Your task to perform on an android device: change the clock style Image 0: 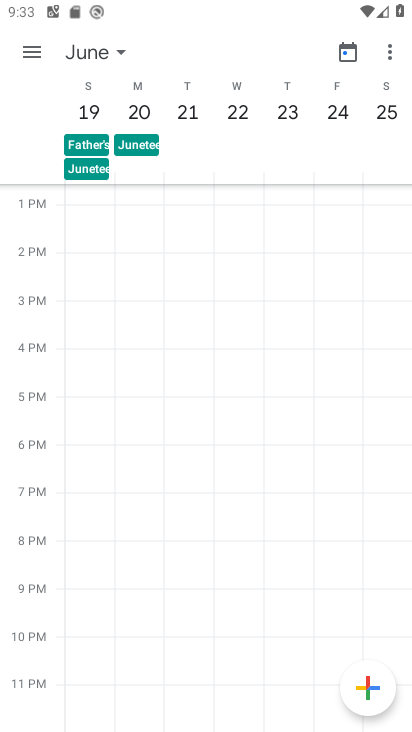
Step 0: press home button
Your task to perform on an android device: change the clock style Image 1: 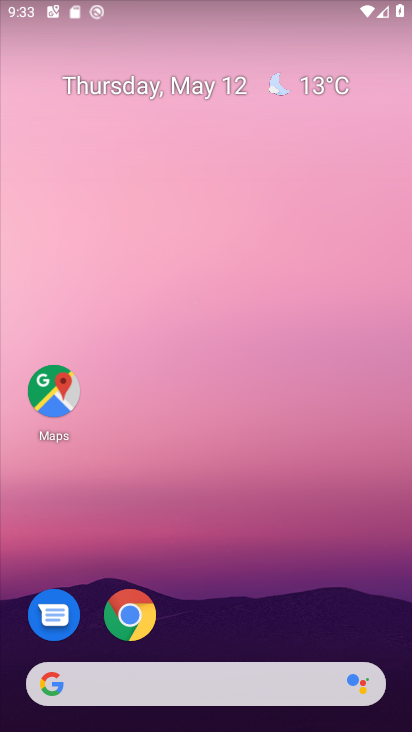
Step 1: drag from (252, 542) to (201, 79)
Your task to perform on an android device: change the clock style Image 2: 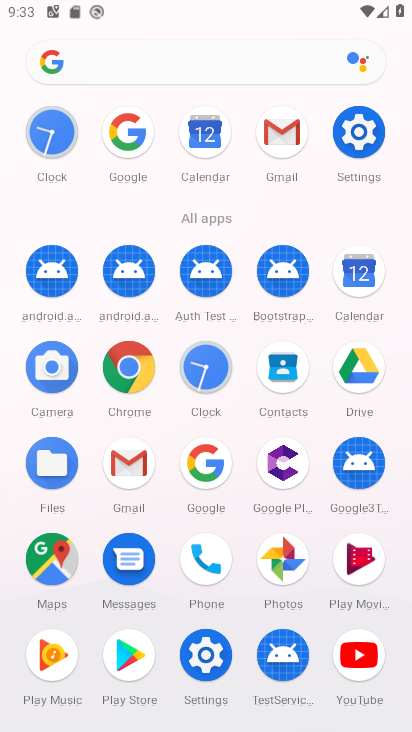
Step 2: click (218, 370)
Your task to perform on an android device: change the clock style Image 3: 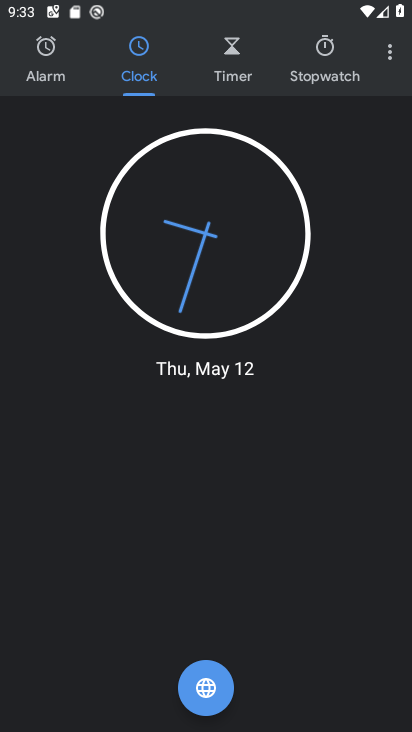
Step 3: click (388, 56)
Your task to perform on an android device: change the clock style Image 4: 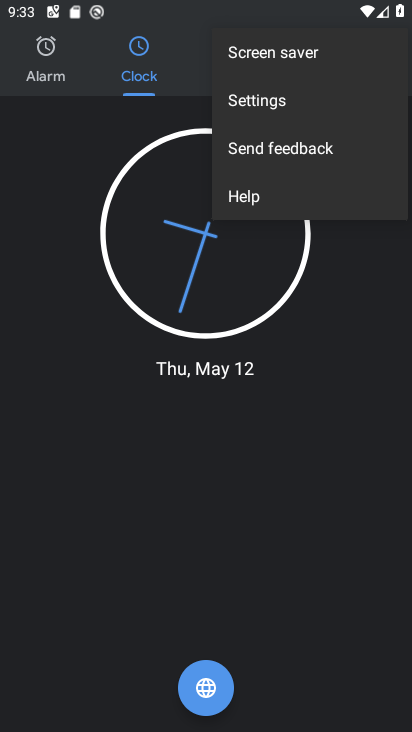
Step 4: click (263, 99)
Your task to perform on an android device: change the clock style Image 5: 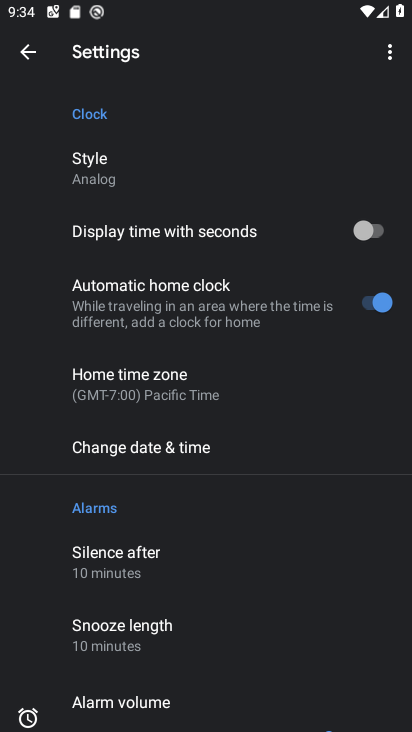
Step 5: click (93, 153)
Your task to perform on an android device: change the clock style Image 6: 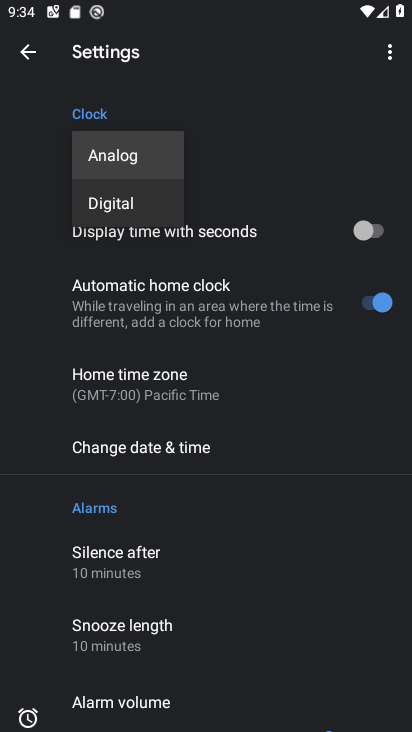
Step 6: click (122, 200)
Your task to perform on an android device: change the clock style Image 7: 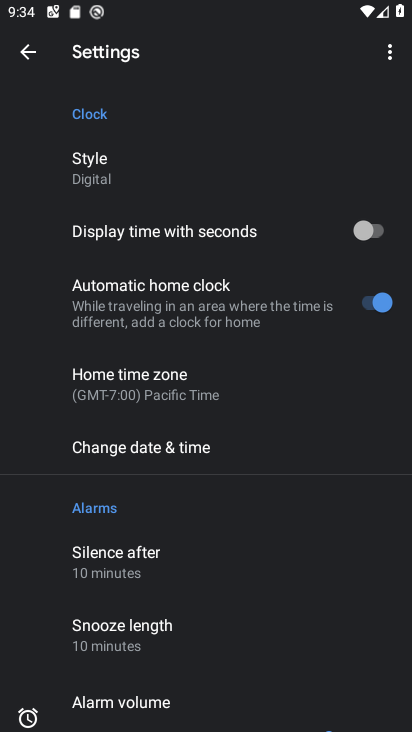
Step 7: task complete